Your task to perform on an android device: What is the speed of a cheetah? Image 0: 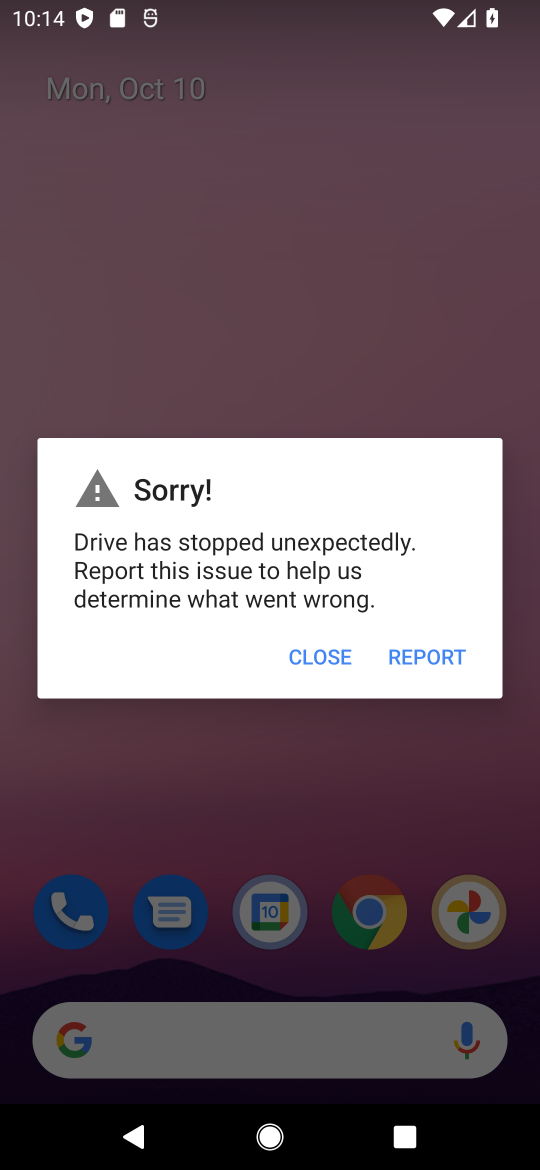
Step 0: click (320, 656)
Your task to perform on an android device: What is the speed of a cheetah? Image 1: 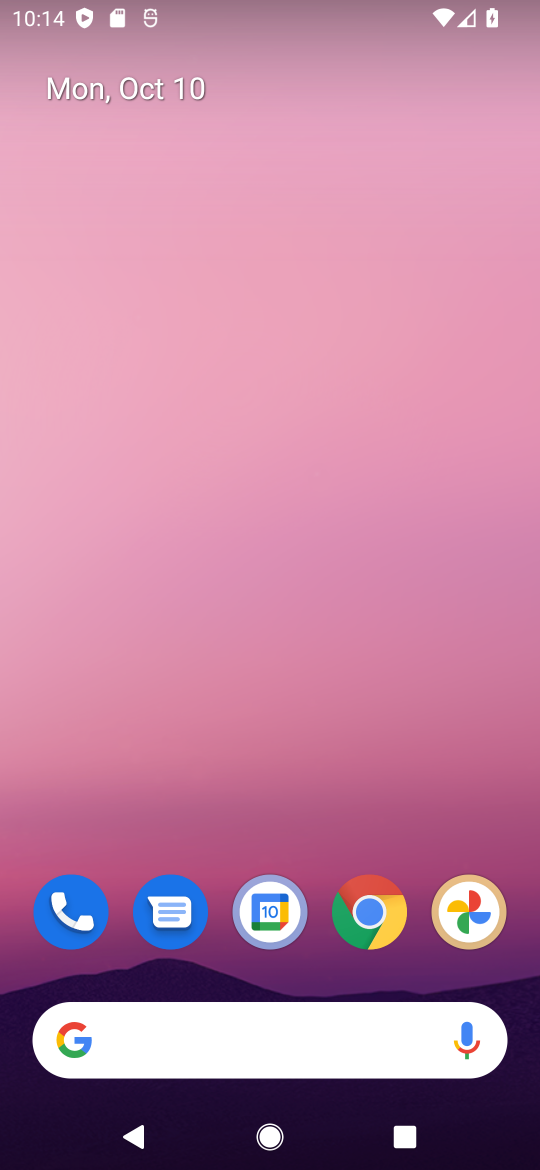
Step 1: click (65, 1049)
Your task to perform on an android device: What is the speed of a cheetah? Image 2: 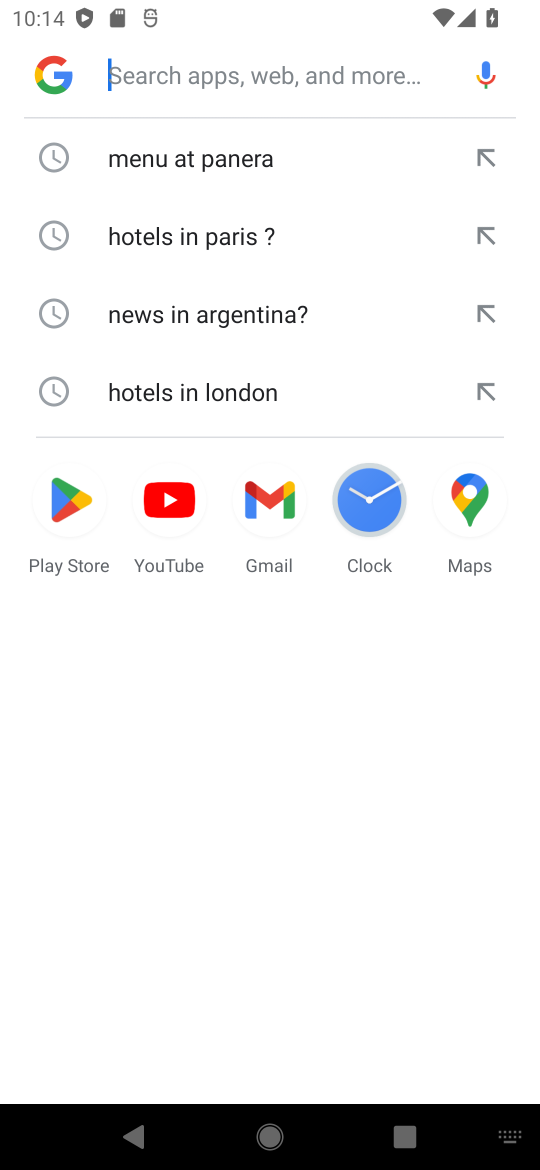
Step 2: type "speed of a cheetah?"
Your task to perform on an android device: What is the speed of a cheetah? Image 3: 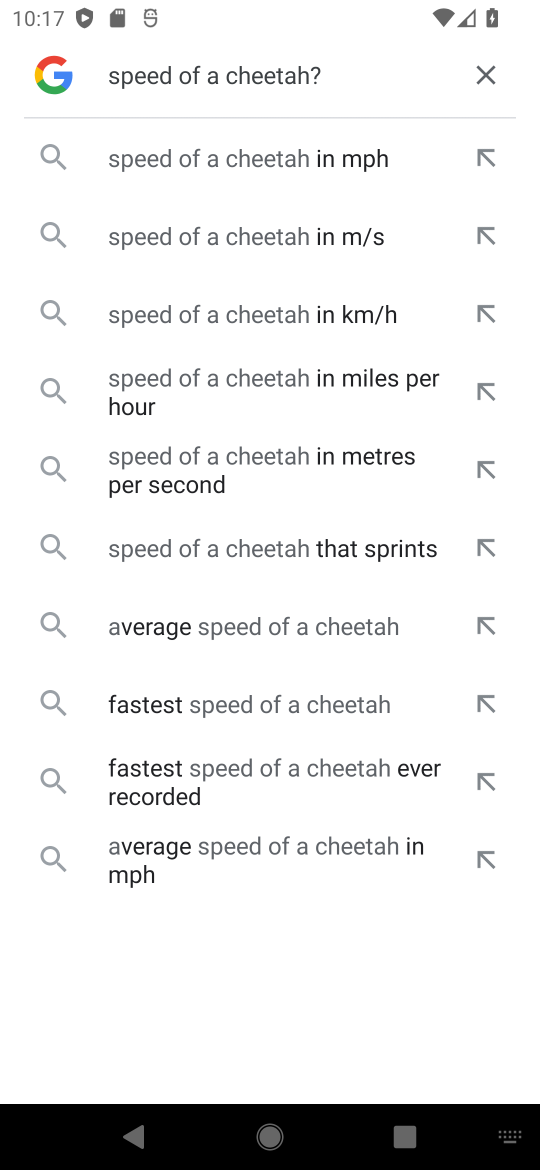
Step 3: click (320, 164)
Your task to perform on an android device: What is the speed of a cheetah? Image 4: 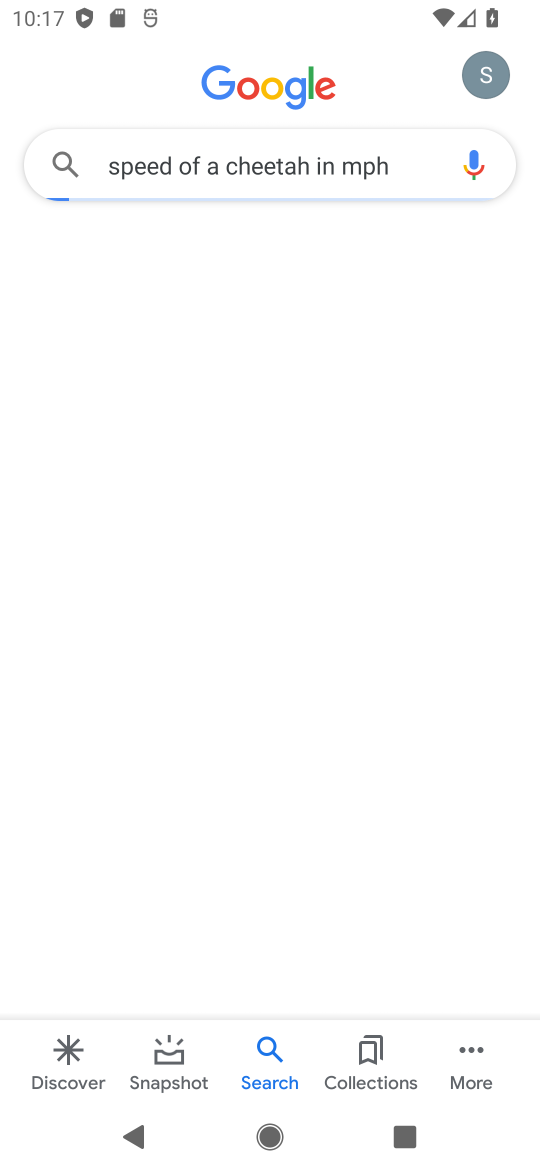
Step 4: task complete